Your task to perform on an android device: Open the phone app and click the voicemail tab. Image 0: 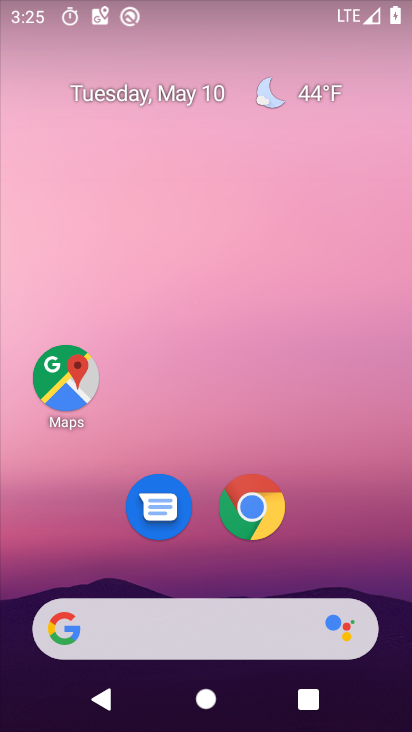
Step 0: drag from (220, 600) to (253, 203)
Your task to perform on an android device: Open the phone app and click the voicemail tab. Image 1: 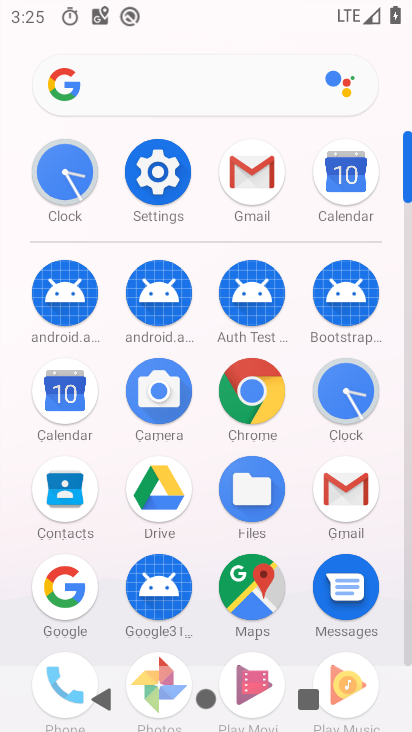
Step 1: drag from (121, 633) to (104, 404)
Your task to perform on an android device: Open the phone app and click the voicemail tab. Image 2: 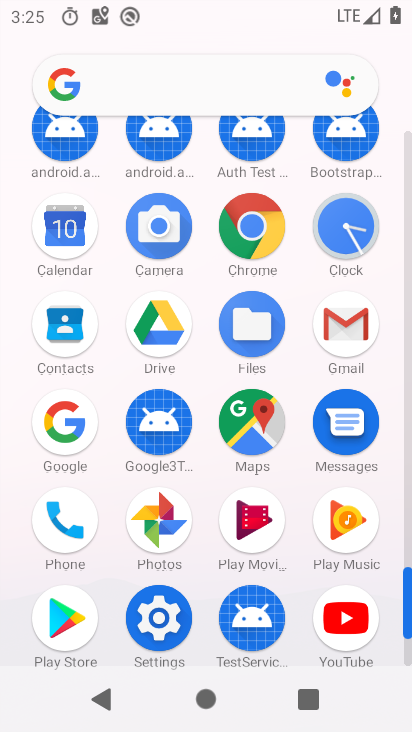
Step 2: click (68, 527)
Your task to perform on an android device: Open the phone app and click the voicemail tab. Image 3: 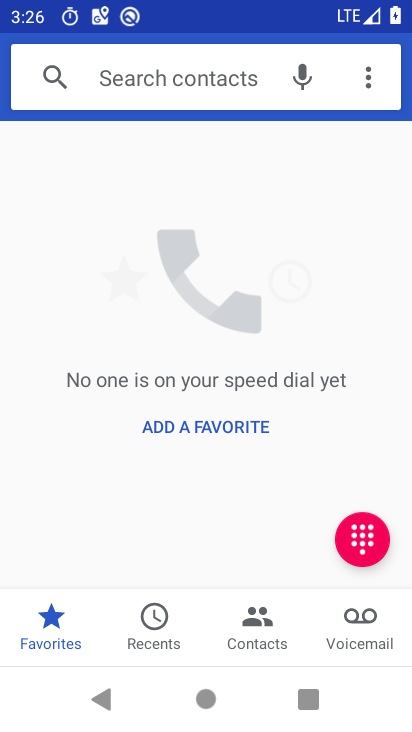
Step 3: click (359, 605)
Your task to perform on an android device: Open the phone app and click the voicemail tab. Image 4: 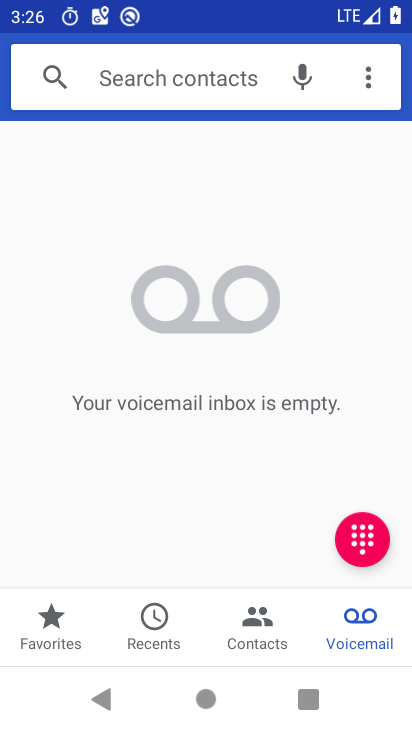
Step 4: task complete